Your task to perform on an android device: Open Google Chrome Image 0: 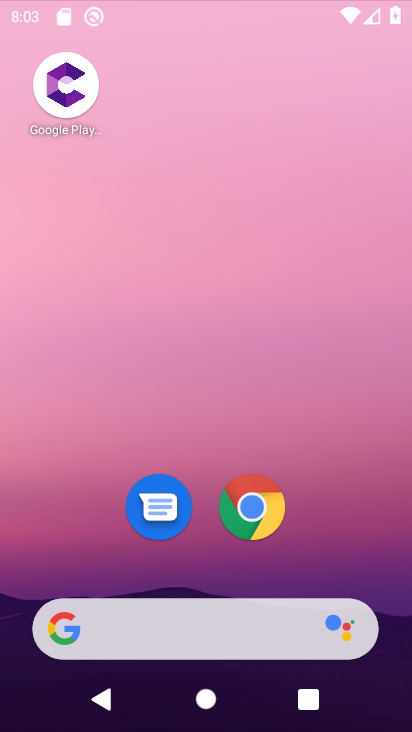
Step 0: click (253, 150)
Your task to perform on an android device: Open Google Chrome Image 1: 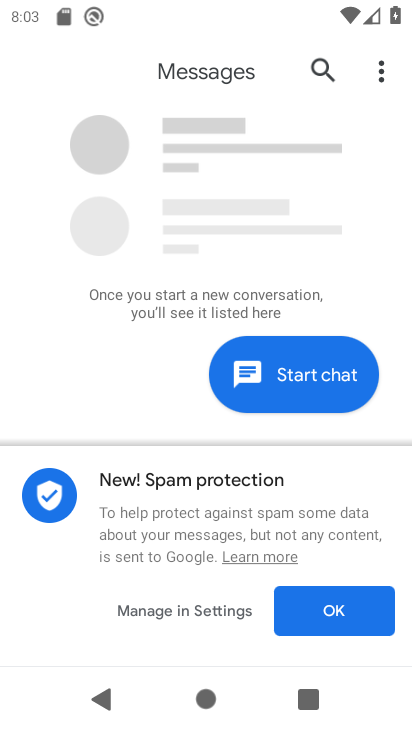
Step 1: press home button
Your task to perform on an android device: Open Google Chrome Image 2: 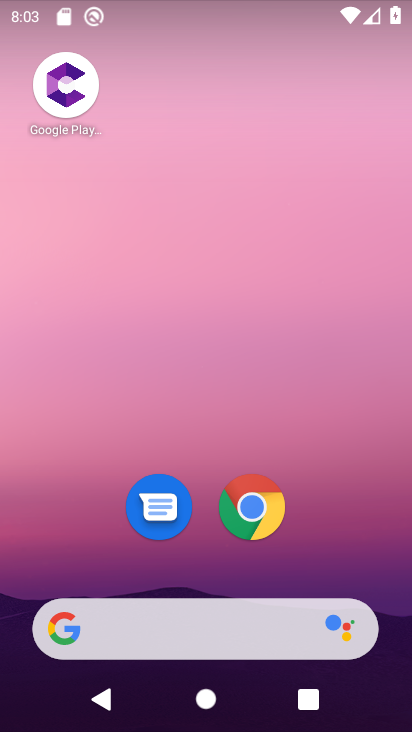
Step 2: drag from (200, 565) to (190, 138)
Your task to perform on an android device: Open Google Chrome Image 3: 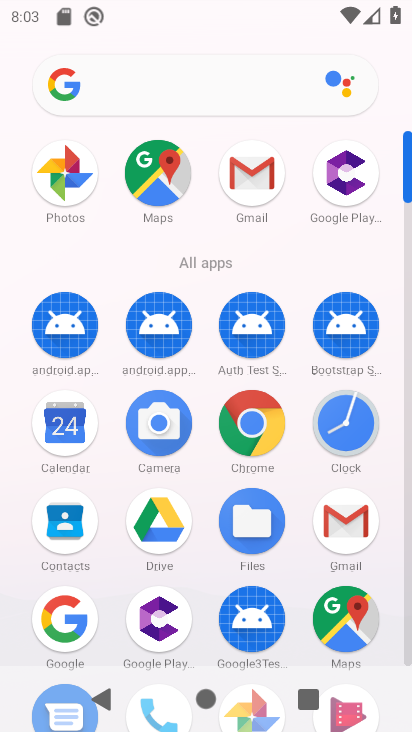
Step 3: click (254, 425)
Your task to perform on an android device: Open Google Chrome Image 4: 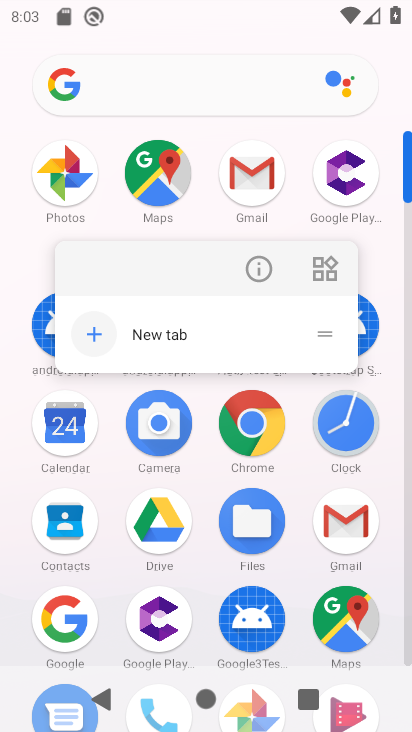
Step 4: click (250, 275)
Your task to perform on an android device: Open Google Chrome Image 5: 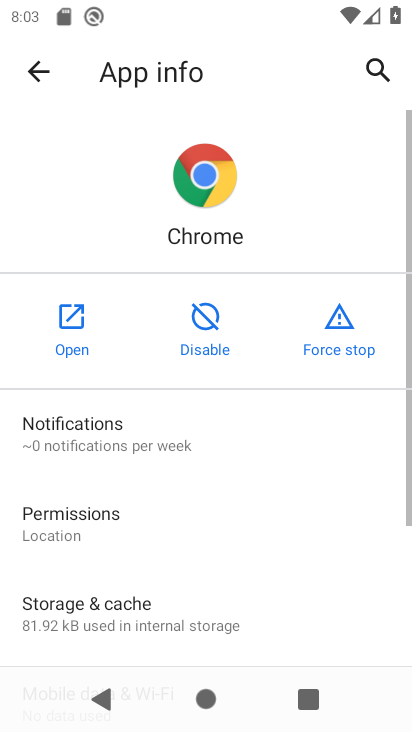
Step 5: click (73, 326)
Your task to perform on an android device: Open Google Chrome Image 6: 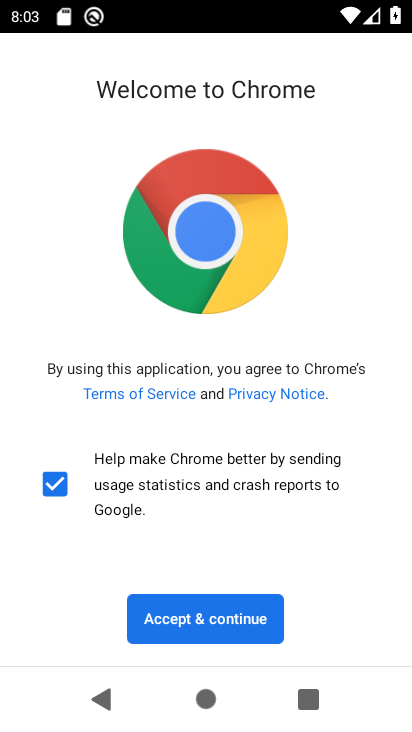
Step 6: click (221, 610)
Your task to perform on an android device: Open Google Chrome Image 7: 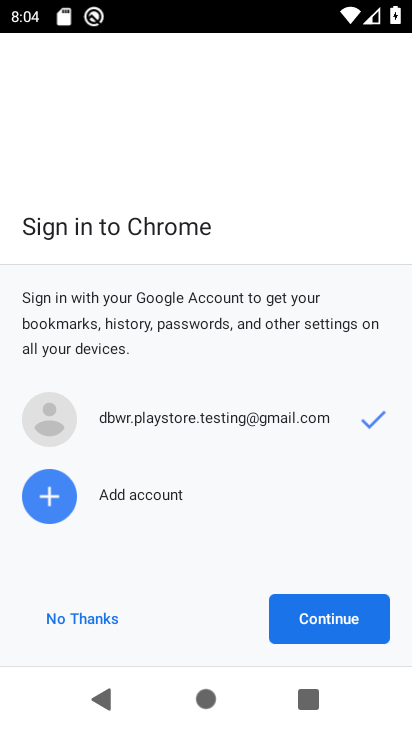
Step 7: click (327, 617)
Your task to perform on an android device: Open Google Chrome Image 8: 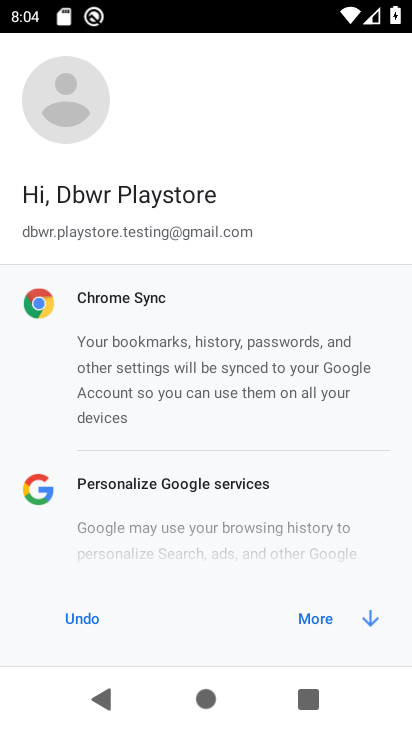
Step 8: click (306, 614)
Your task to perform on an android device: Open Google Chrome Image 9: 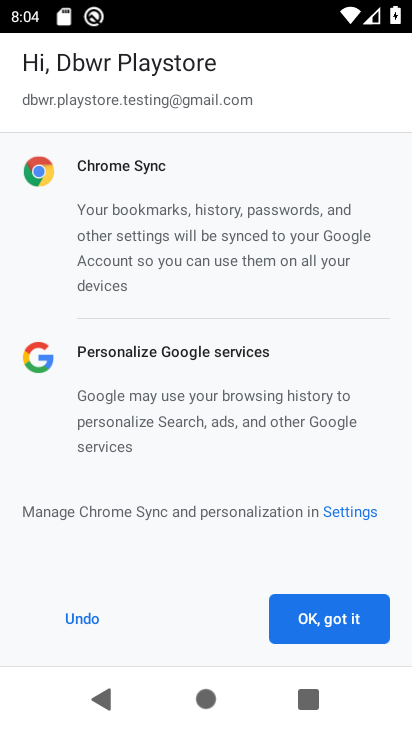
Step 9: click (314, 613)
Your task to perform on an android device: Open Google Chrome Image 10: 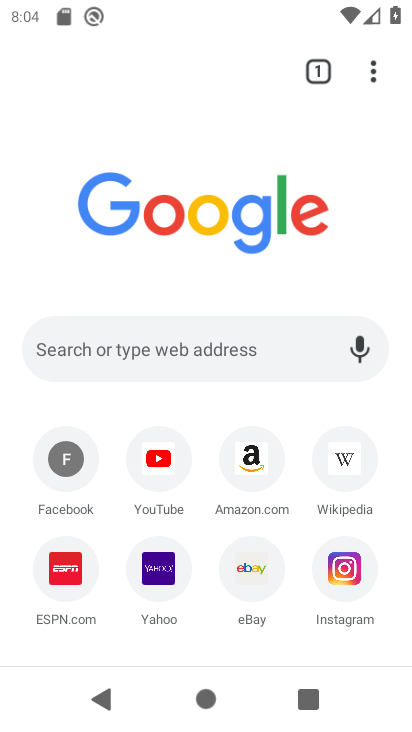
Step 10: task complete